Your task to perform on an android device: Open Amazon Image 0: 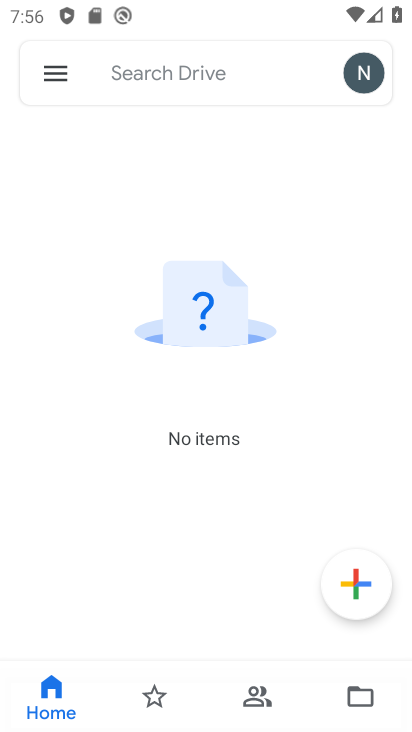
Step 0: press home button
Your task to perform on an android device: Open Amazon Image 1: 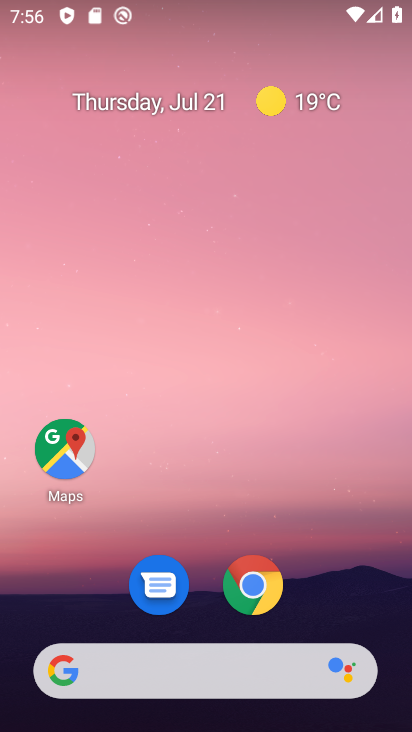
Step 1: click (261, 584)
Your task to perform on an android device: Open Amazon Image 2: 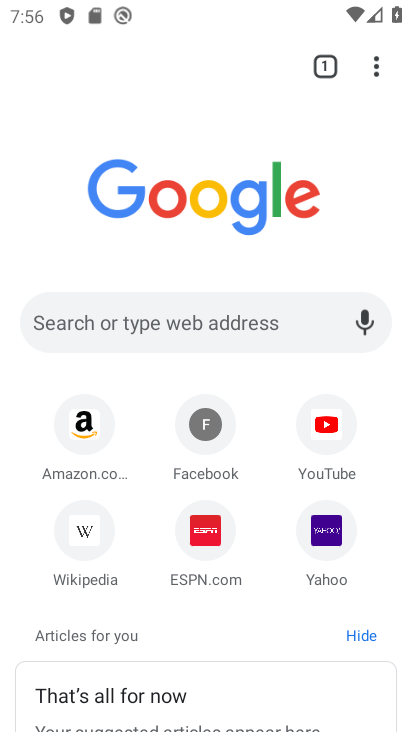
Step 2: click (88, 419)
Your task to perform on an android device: Open Amazon Image 3: 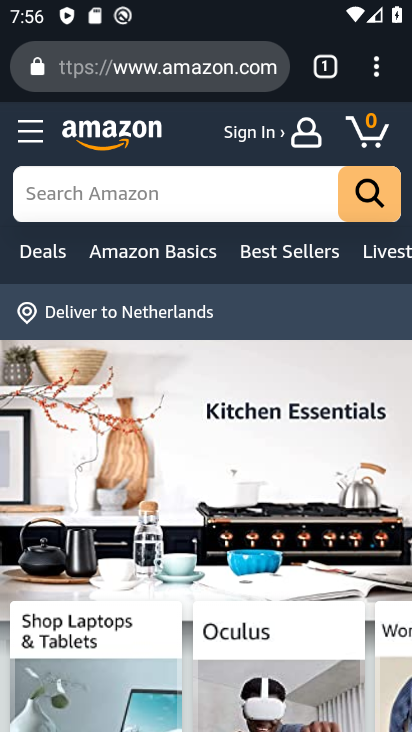
Step 3: task complete